Your task to perform on an android device: Go to Android settings Image 0: 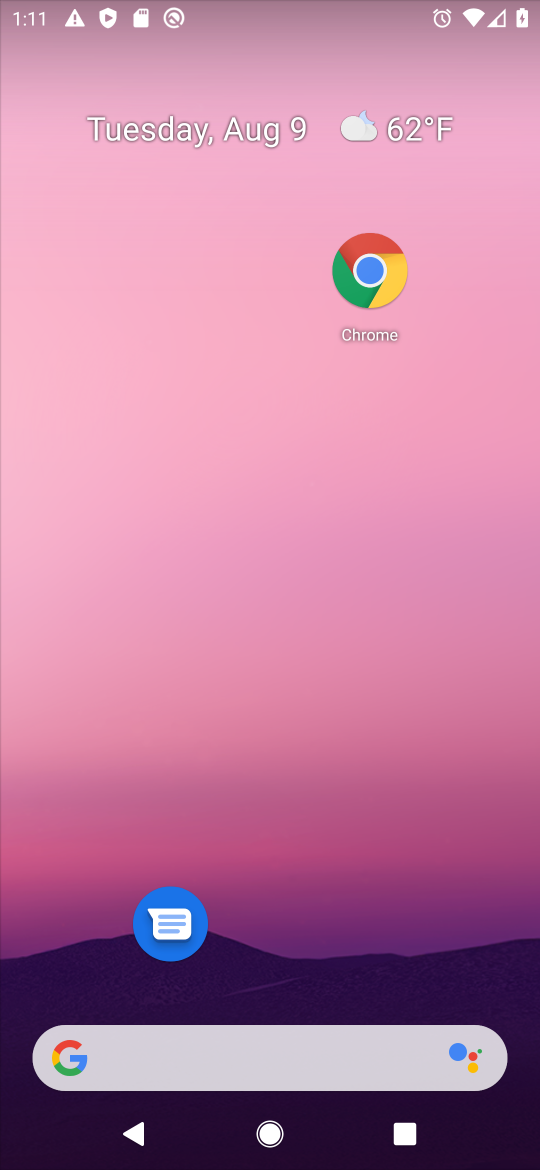
Step 0: drag from (319, 1000) to (254, 66)
Your task to perform on an android device: Go to Android settings Image 1: 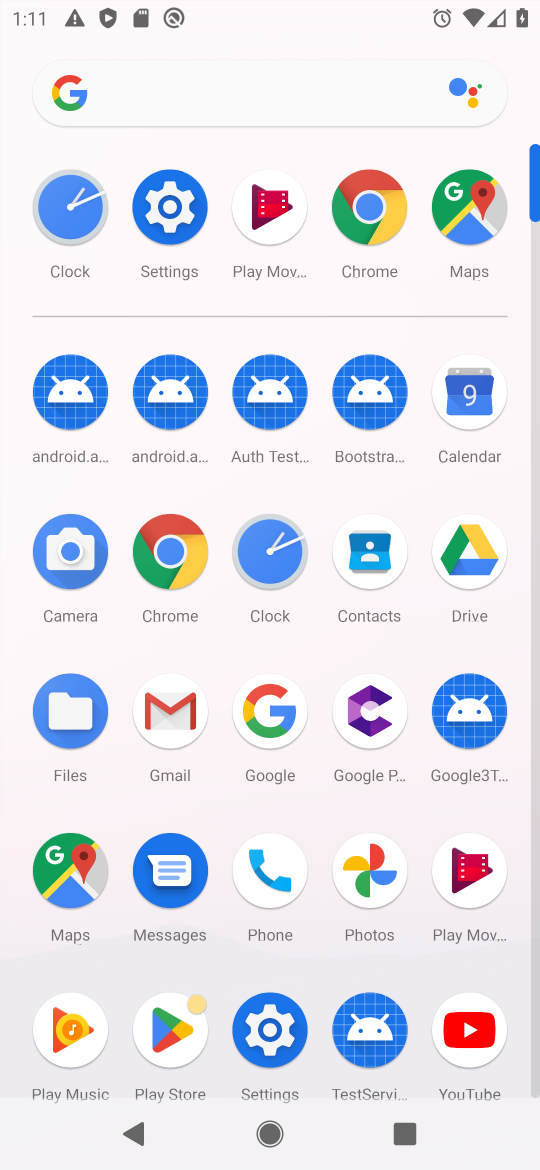
Step 1: click (198, 196)
Your task to perform on an android device: Go to Android settings Image 2: 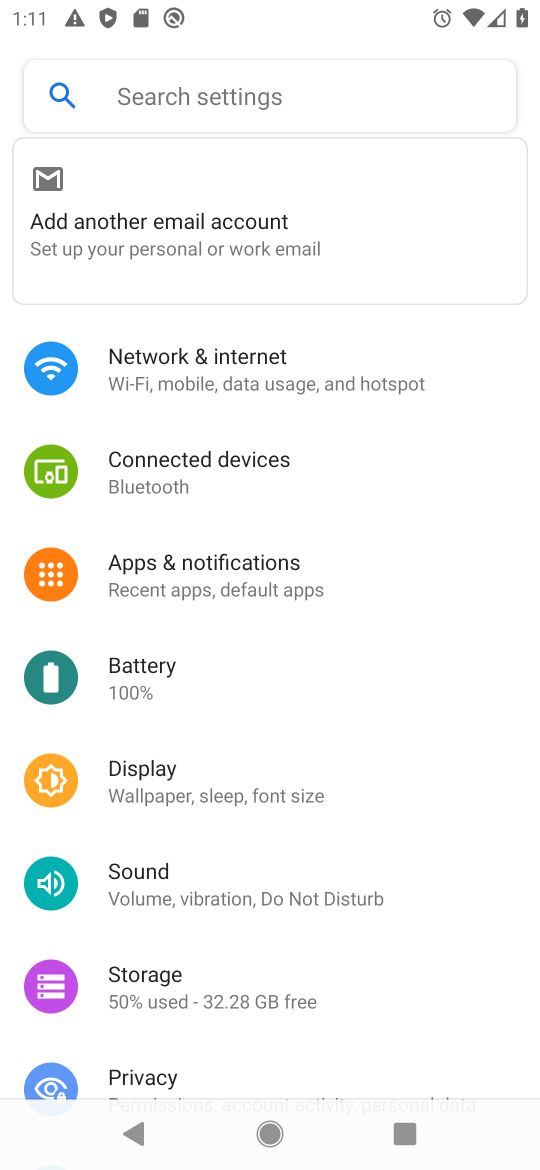
Step 2: task complete